Your task to perform on an android device: set default search engine in the chrome app Image 0: 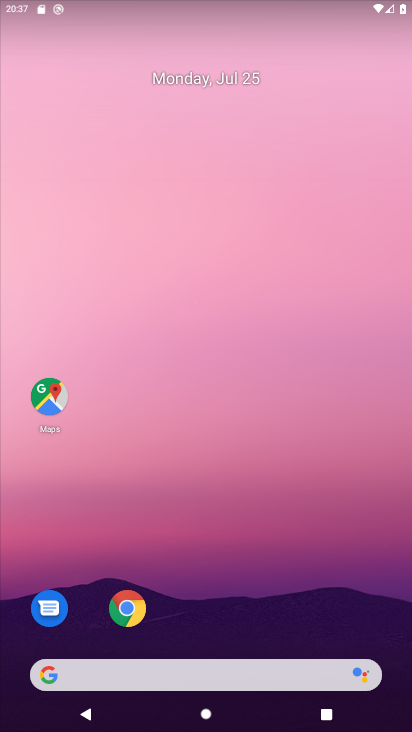
Step 0: click (130, 613)
Your task to perform on an android device: set default search engine in the chrome app Image 1: 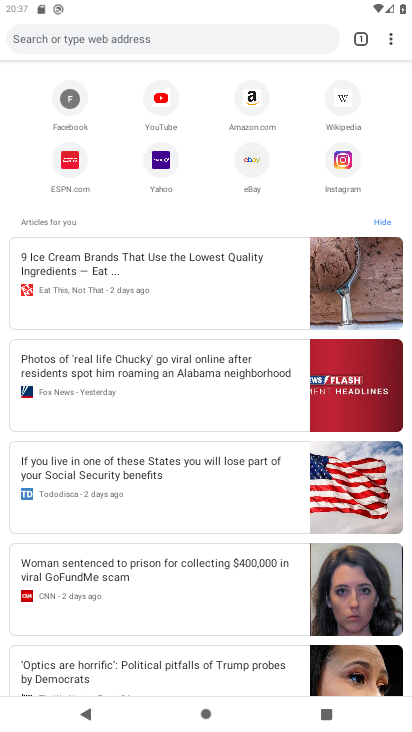
Step 1: click (396, 40)
Your task to perform on an android device: set default search engine in the chrome app Image 2: 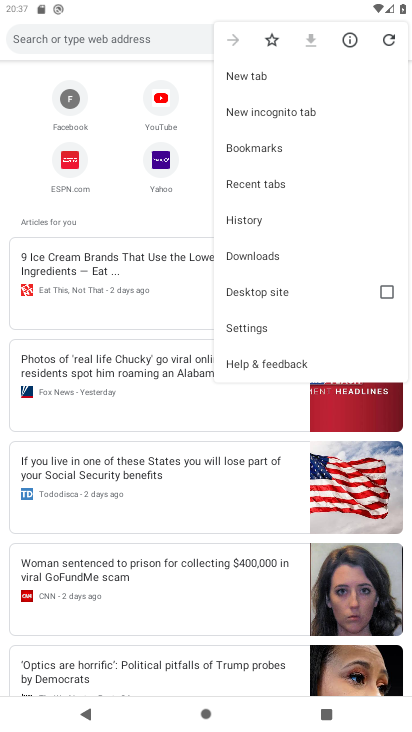
Step 2: click (260, 324)
Your task to perform on an android device: set default search engine in the chrome app Image 3: 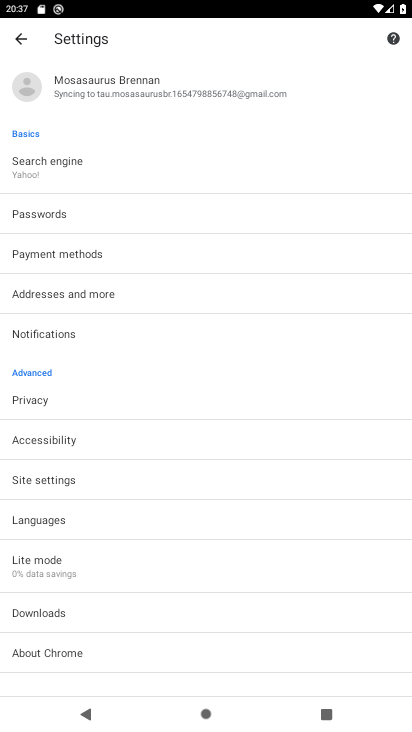
Step 3: click (68, 163)
Your task to perform on an android device: set default search engine in the chrome app Image 4: 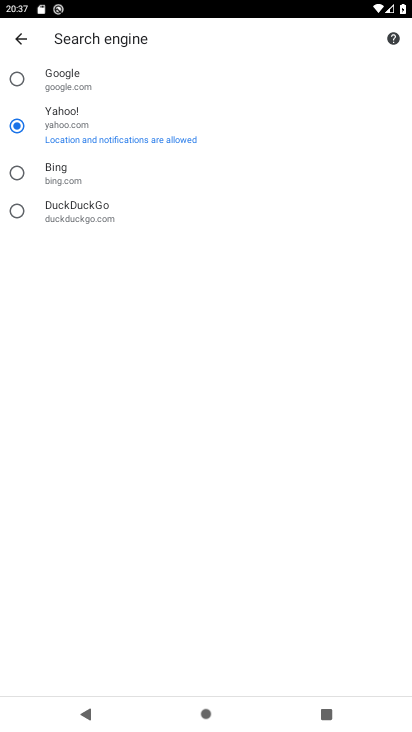
Step 4: click (118, 83)
Your task to perform on an android device: set default search engine in the chrome app Image 5: 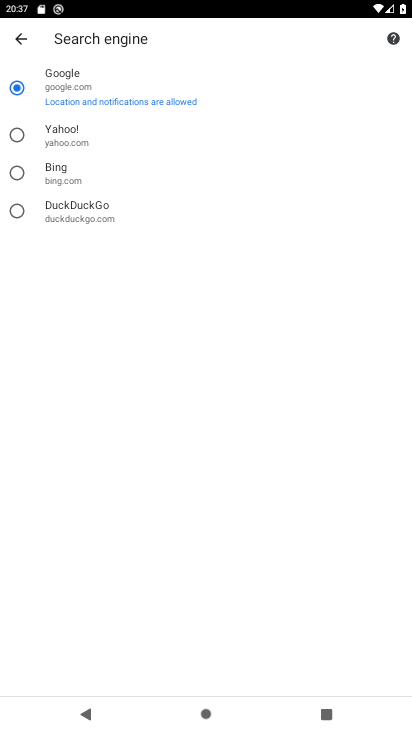
Step 5: task complete